Your task to perform on an android device: turn on translation in the chrome app Image 0: 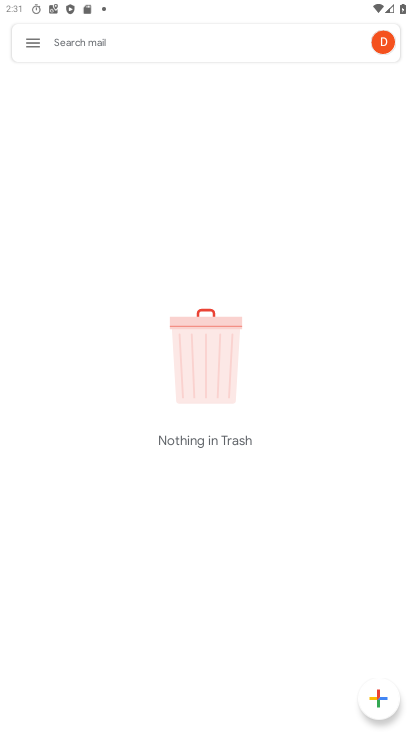
Step 0: press home button
Your task to perform on an android device: turn on translation in the chrome app Image 1: 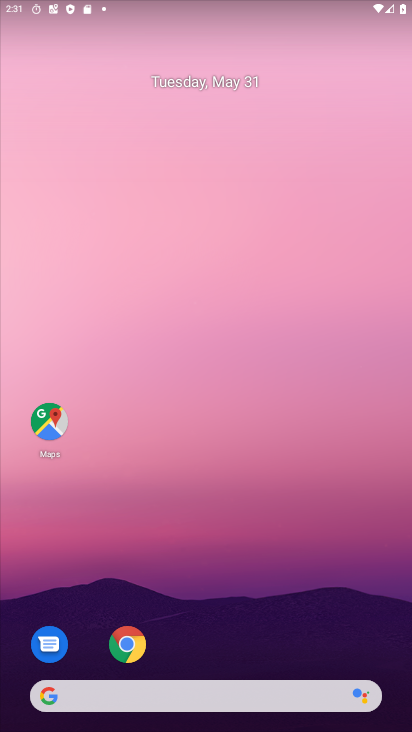
Step 1: click (137, 644)
Your task to perform on an android device: turn on translation in the chrome app Image 2: 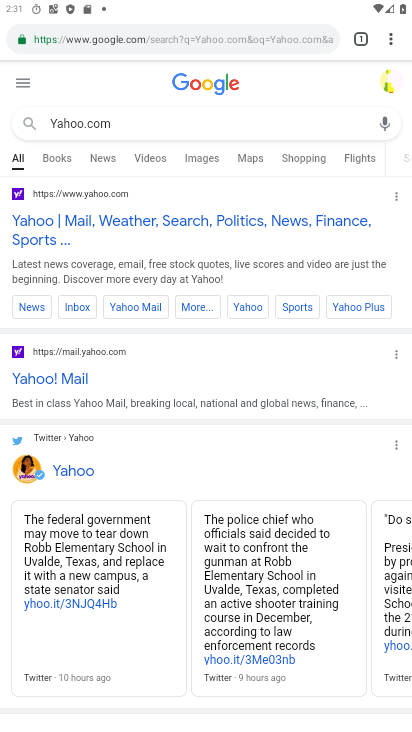
Step 2: click (387, 36)
Your task to perform on an android device: turn on translation in the chrome app Image 3: 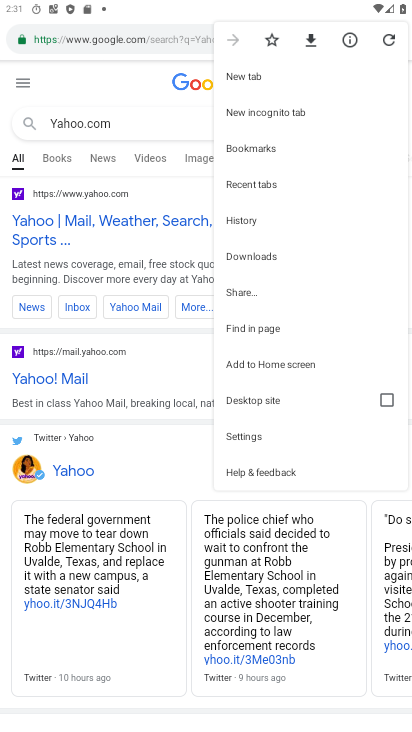
Step 3: click (235, 435)
Your task to perform on an android device: turn on translation in the chrome app Image 4: 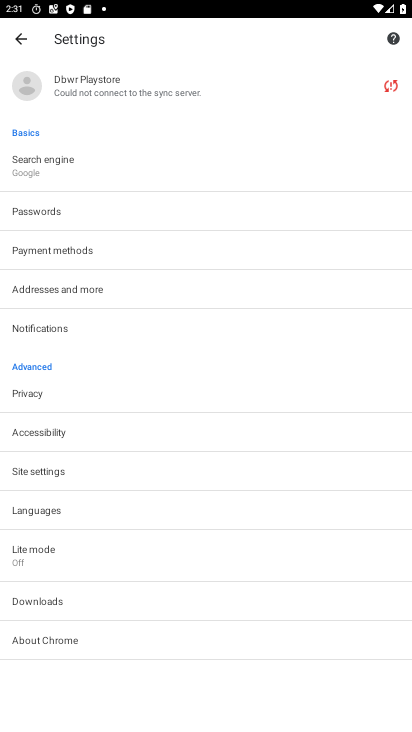
Step 4: click (47, 518)
Your task to perform on an android device: turn on translation in the chrome app Image 5: 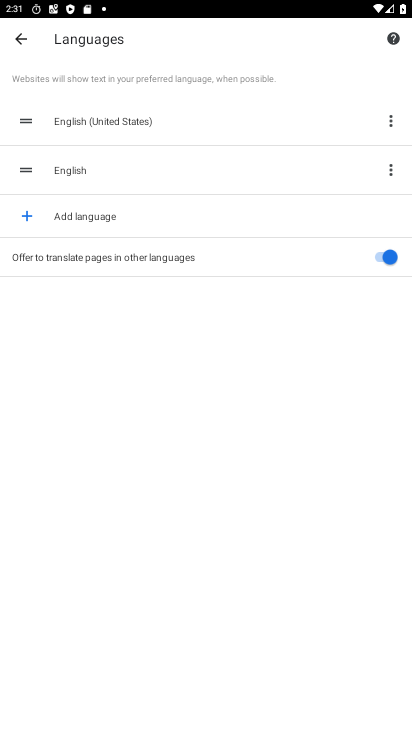
Step 5: click (378, 257)
Your task to perform on an android device: turn on translation in the chrome app Image 6: 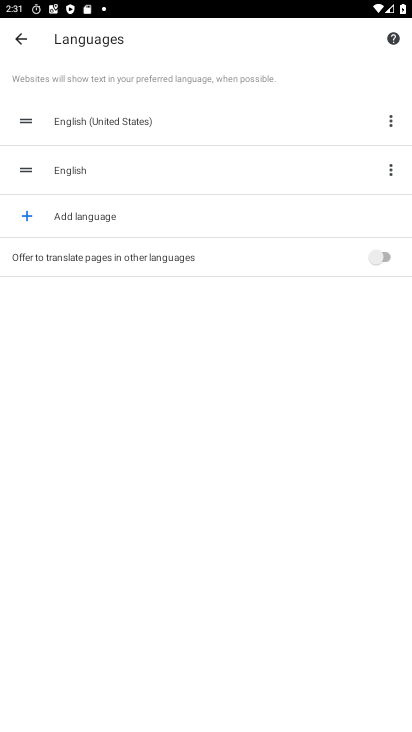
Step 6: click (384, 257)
Your task to perform on an android device: turn on translation in the chrome app Image 7: 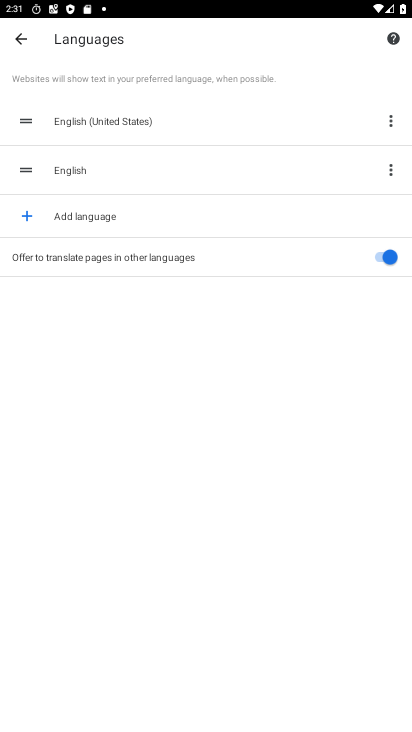
Step 7: task complete